Your task to perform on an android device: turn on the 24-hour format for clock Image 0: 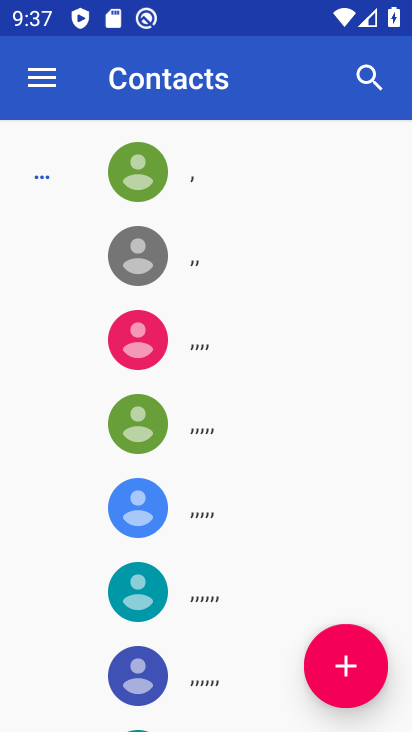
Step 0: press home button
Your task to perform on an android device: turn on the 24-hour format for clock Image 1: 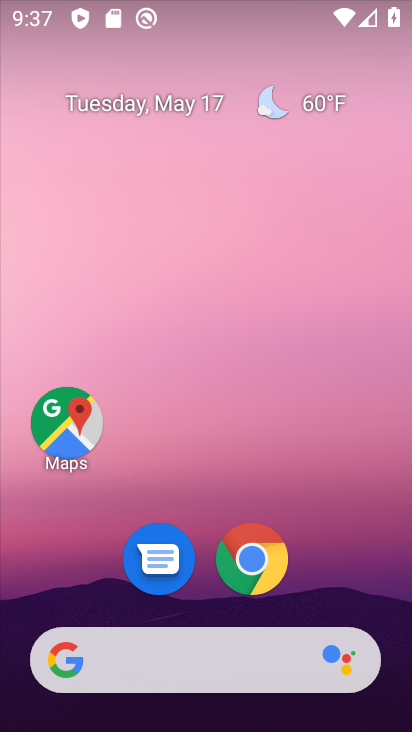
Step 1: drag from (313, 565) to (364, 166)
Your task to perform on an android device: turn on the 24-hour format for clock Image 2: 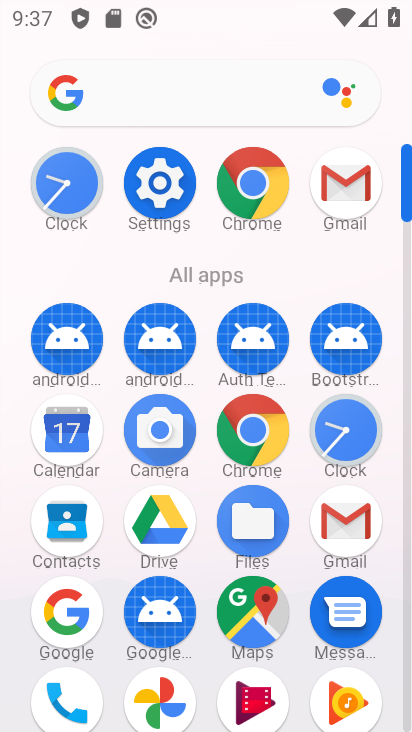
Step 2: click (352, 429)
Your task to perform on an android device: turn on the 24-hour format for clock Image 3: 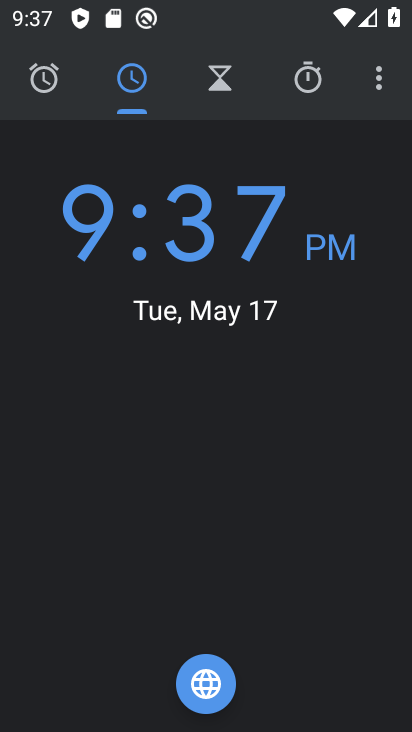
Step 3: click (390, 75)
Your task to perform on an android device: turn on the 24-hour format for clock Image 4: 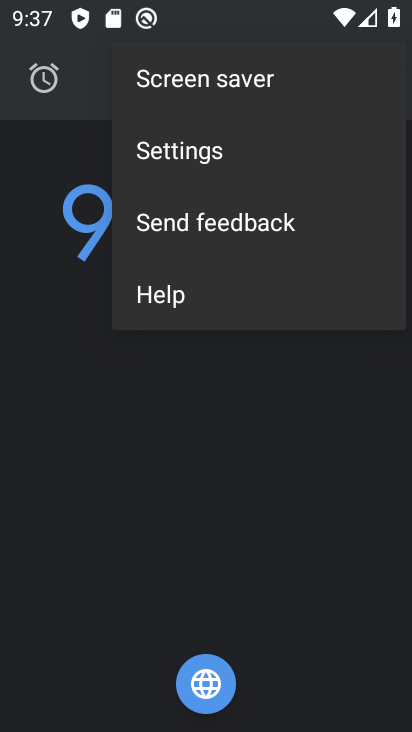
Step 4: click (202, 161)
Your task to perform on an android device: turn on the 24-hour format for clock Image 5: 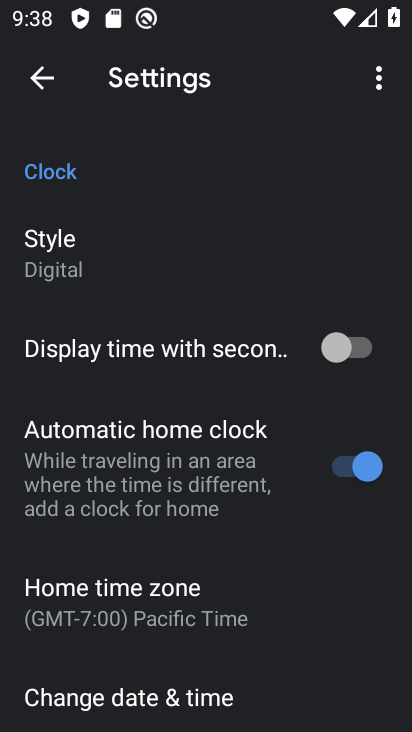
Step 5: drag from (160, 575) to (256, 231)
Your task to perform on an android device: turn on the 24-hour format for clock Image 6: 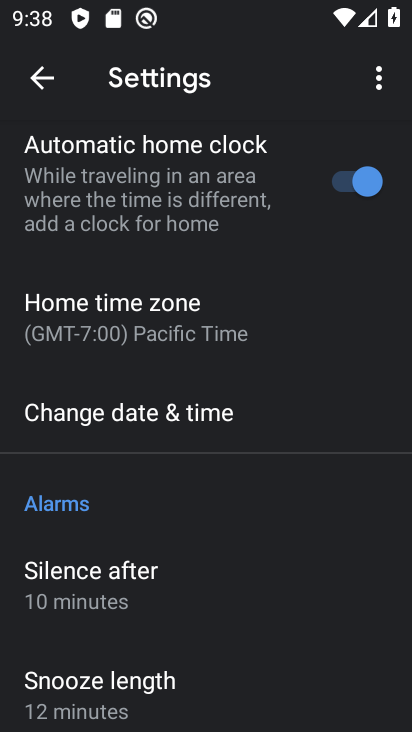
Step 6: click (163, 425)
Your task to perform on an android device: turn on the 24-hour format for clock Image 7: 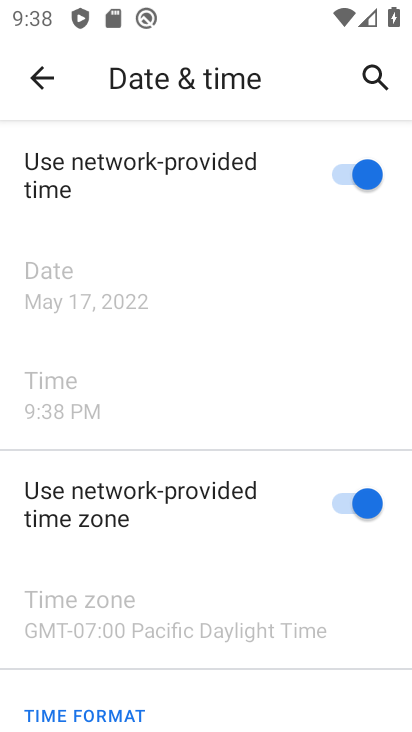
Step 7: drag from (246, 662) to (234, 270)
Your task to perform on an android device: turn on the 24-hour format for clock Image 8: 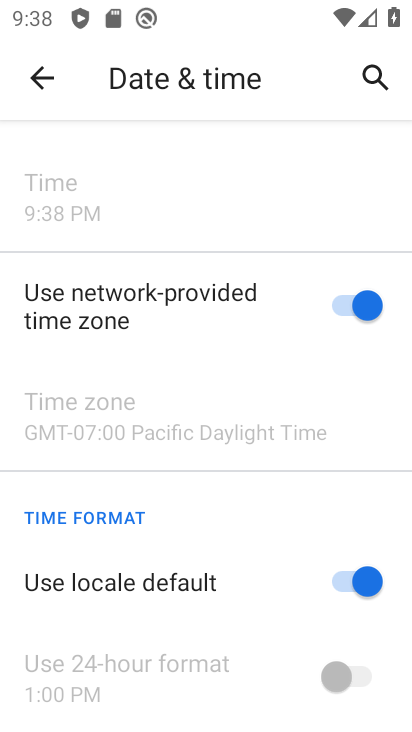
Step 8: click (351, 571)
Your task to perform on an android device: turn on the 24-hour format for clock Image 9: 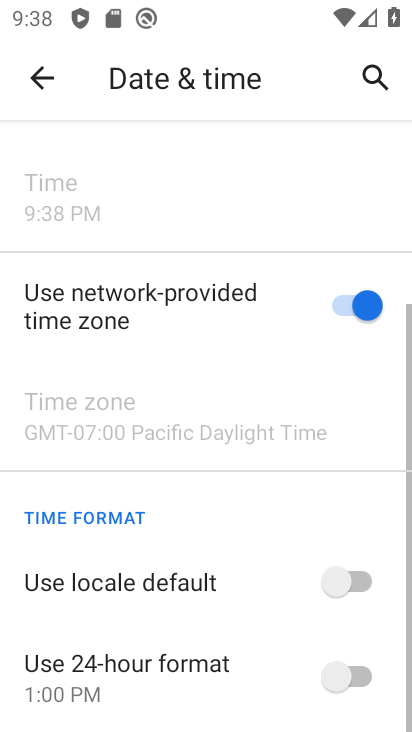
Step 9: click (345, 677)
Your task to perform on an android device: turn on the 24-hour format for clock Image 10: 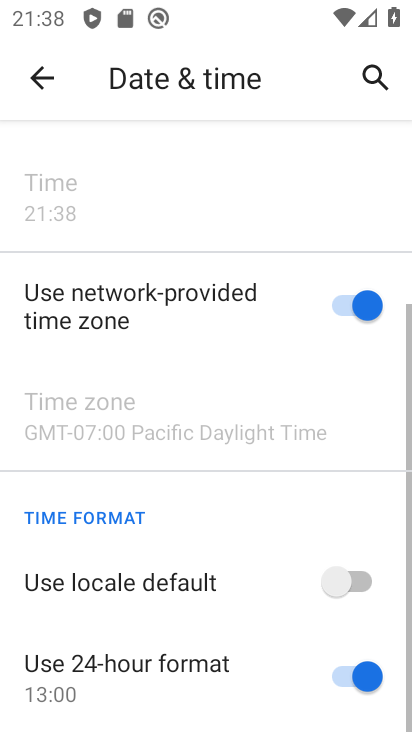
Step 10: task complete